Your task to perform on an android device: Open privacy settings Image 0: 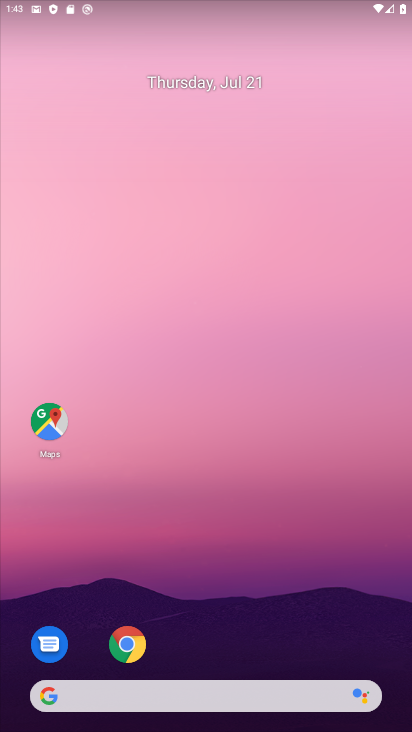
Step 0: drag from (232, 651) to (286, 23)
Your task to perform on an android device: Open privacy settings Image 1: 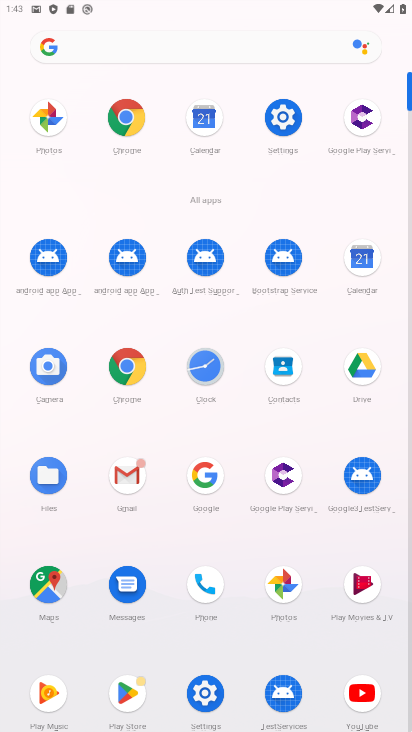
Step 1: click (283, 96)
Your task to perform on an android device: Open privacy settings Image 2: 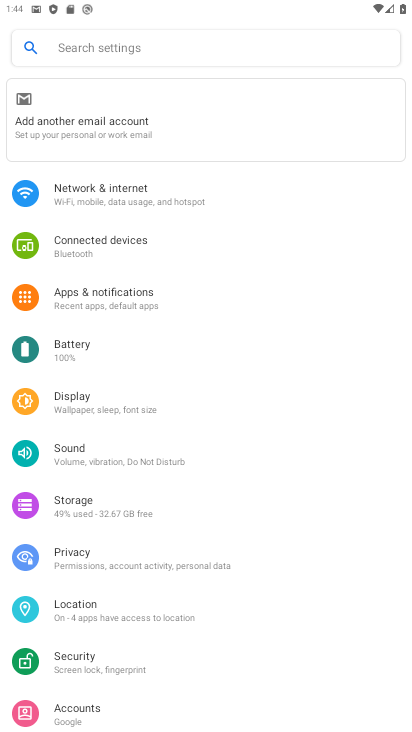
Step 2: click (111, 550)
Your task to perform on an android device: Open privacy settings Image 3: 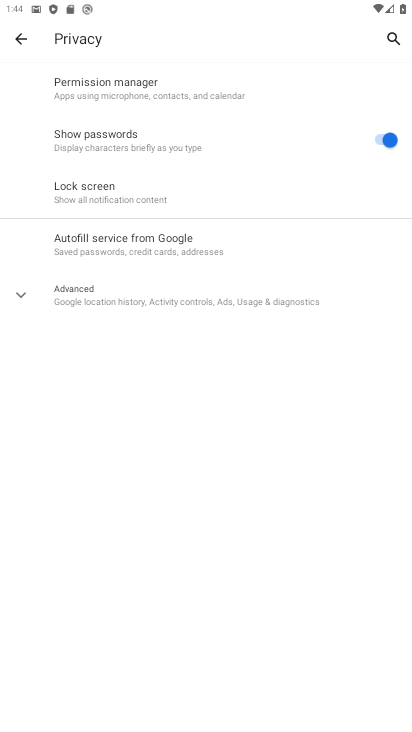
Step 3: task complete